Your task to perform on an android device: set the timer Image 0: 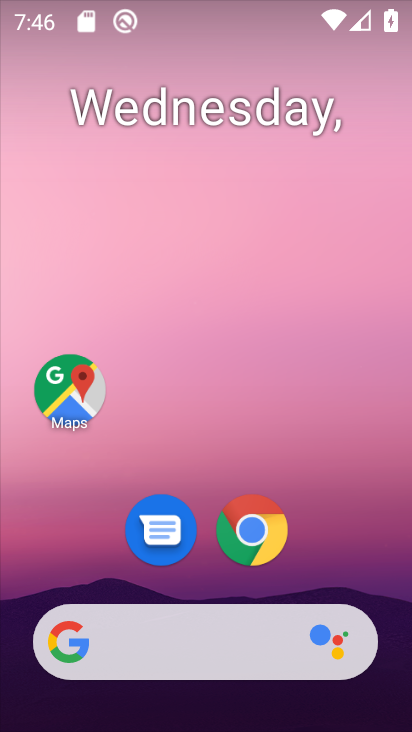
Step 0: drag from (382, 625) to (312, 74)
Your task to perform on an android device: set the timer Image 1: 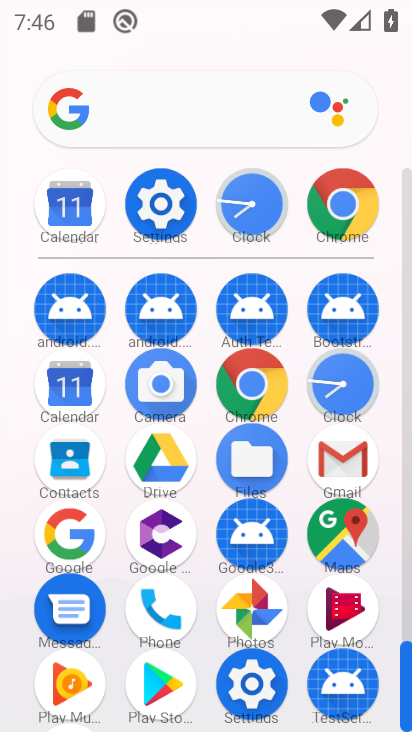
Step 1: click (349, 394)
Your task to perform on an android device: set the timer Image 2: 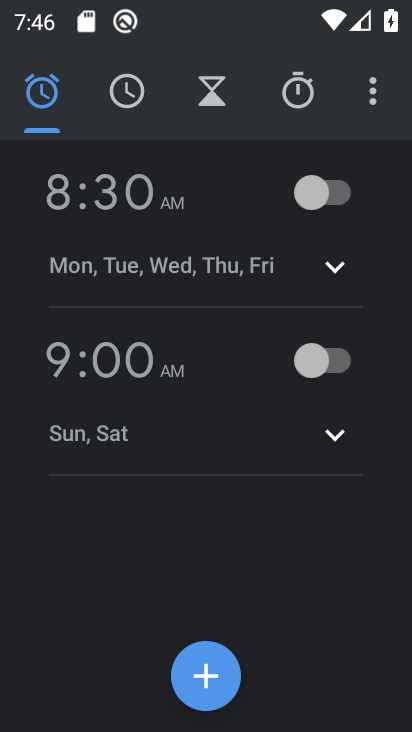
Step 2: click (376, 91)
Your task to perform on an android device: set the timer Image 3: 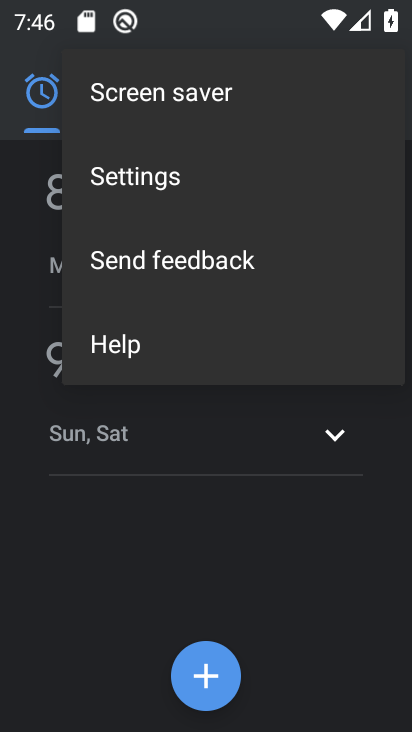
Step 3: click (174, 163)
Your task to perform on an android device: set the timer Image 4: 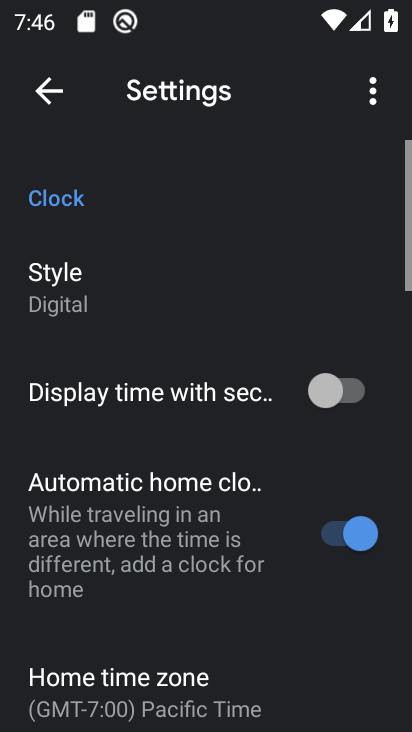
Step 4: drag from (180, 609) to (232, 205)
Your task to perform on an android device: set the timer Image 5: 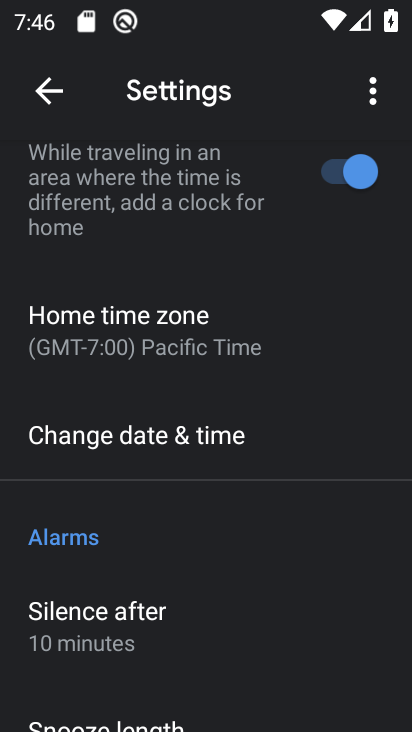
Step 5: click (192, 349)
Your task to perform on an android device: set the timer Image 6: 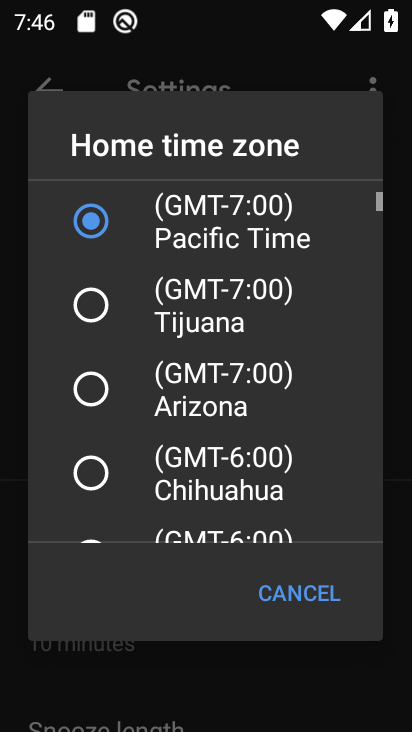
Step 6: click (204, 324)
Your task to perform on an android device: set the timer Image 7: 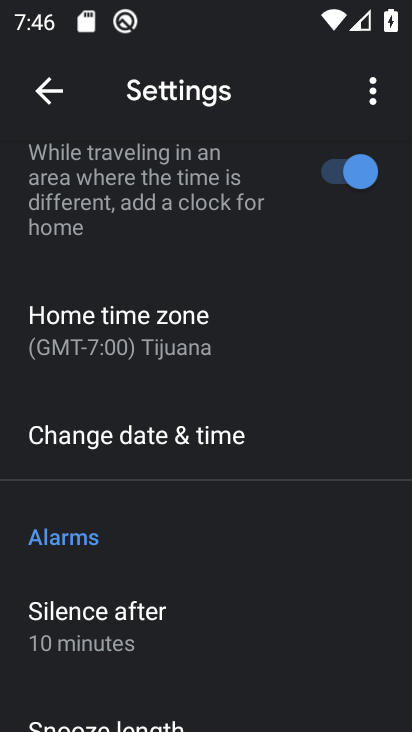
Step 7: task complete